Your task to perform on an android device: turn vacation reply on in the gmail app Image 0: 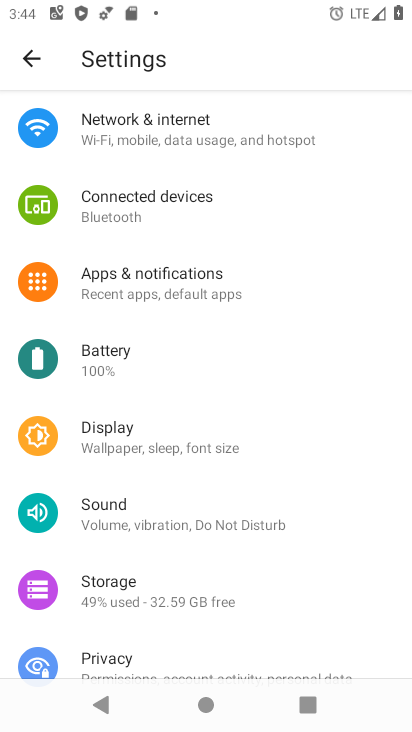
Step 0: press home button
Your task to perform on an android device: turn vacation reply on in the gmail app Image 1: 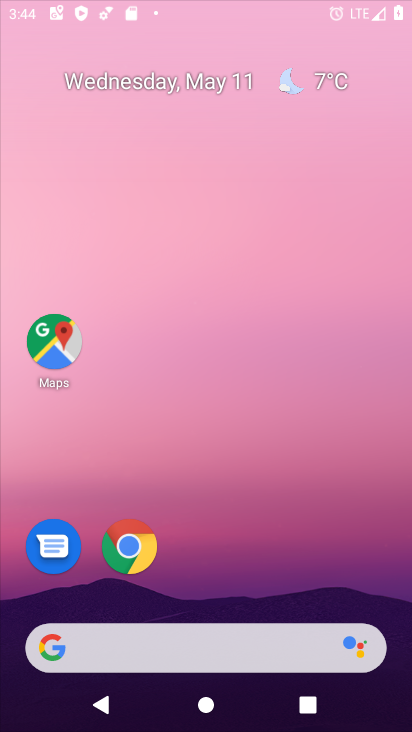
Step 1: drag from (213, 680) to (270, 53)
Your task to perform on an android device: turn vacation reply on in the gmail app Image 2: 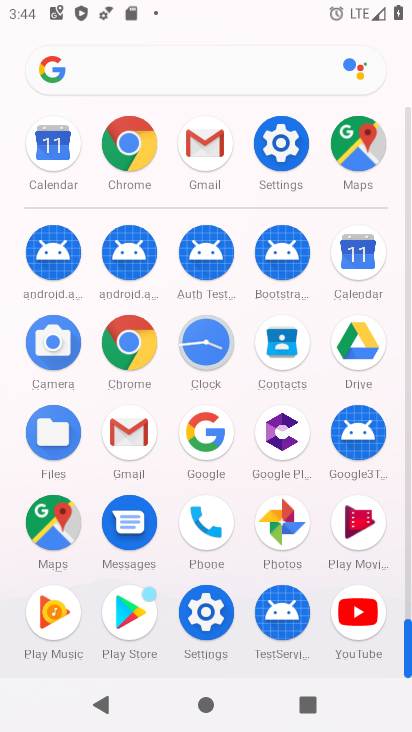
Step 2: click (131, 421)
Your task to perform on an android device: turn vacation reply on in the gmail app Image 3: 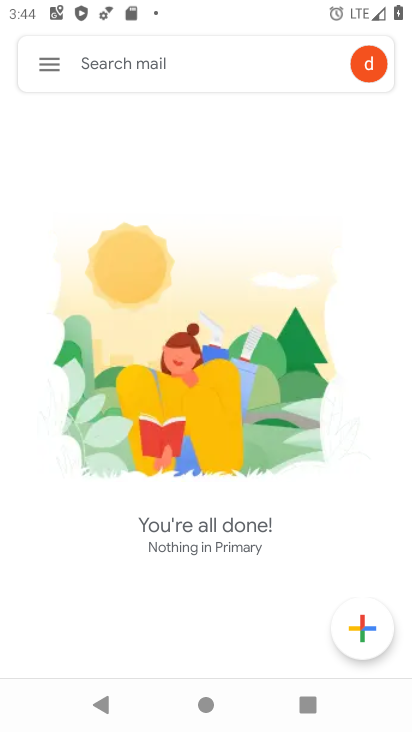
Step 3: click (57, 63)
Your task to perform on an android device: turn vacation reply on in the gmail app Image 4: 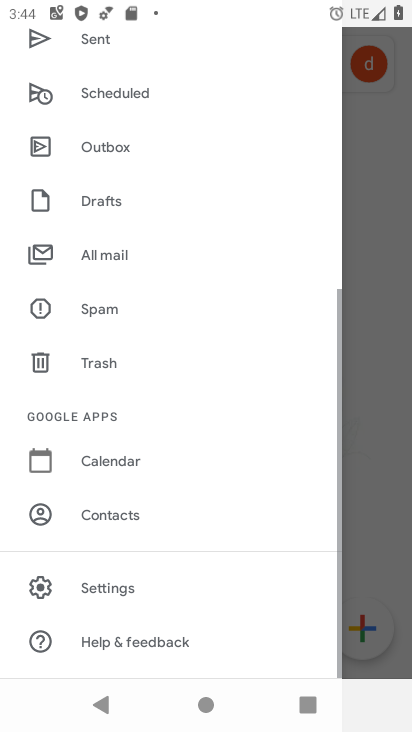
Step 4: click (141, 579)
Your task to perform on an android device: turn vacation reply on in the gmail app Image 5: 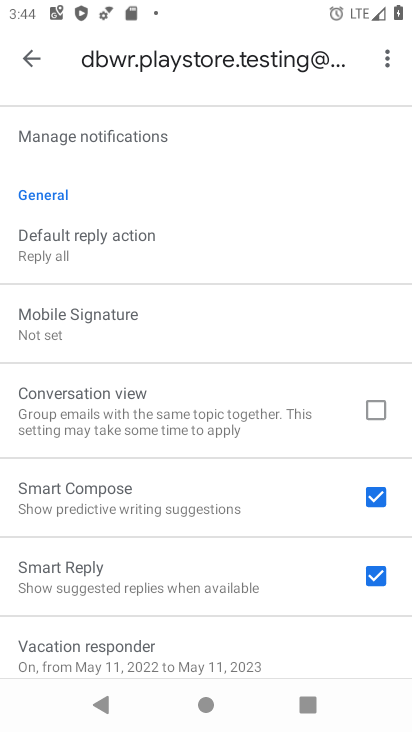
Step 5: click (127, 626)
Your task to perform on an android device: turn vacation reply on in the gmail app Image 6: 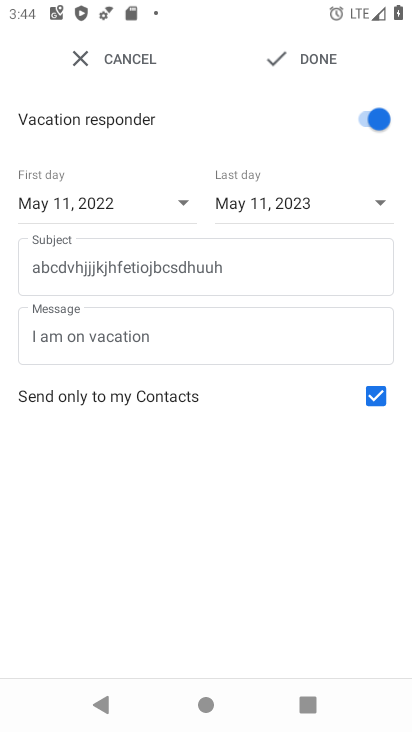
Step 6: click (312, 64)
Your task to perform on an android device: turn vacation reply on in the gmail app Image 7: 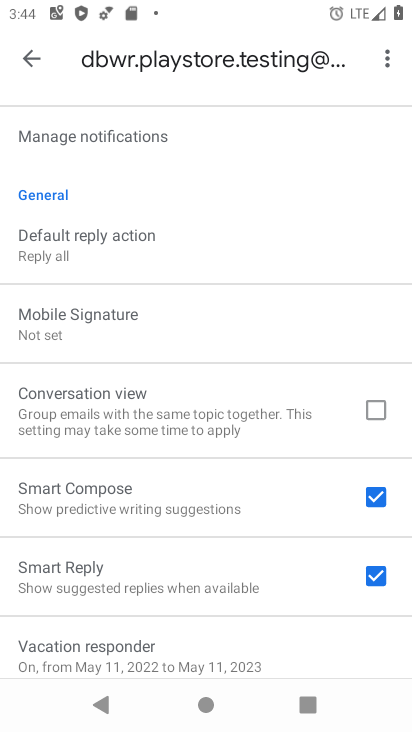
Step 7: task complete